Your task to perform on an android device: Open Google Chrome and click the shortcut for Amazon.com Image 0: 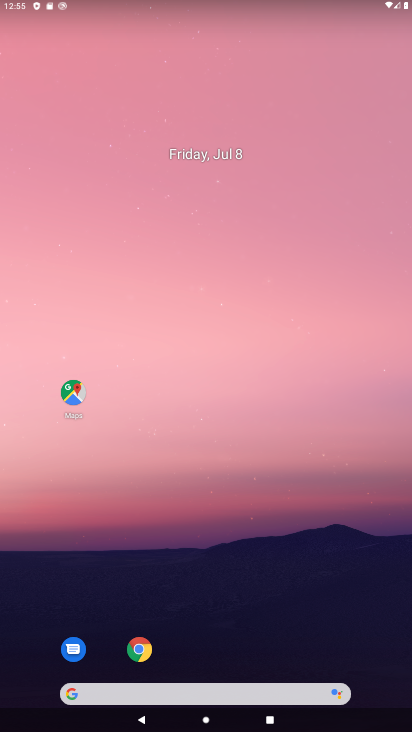
Step 0: drag from (152, 296) to (337, 0)
Your task to perform on an android device: Open Google Chrome and click the shortcut for Amazon.com Image 1: 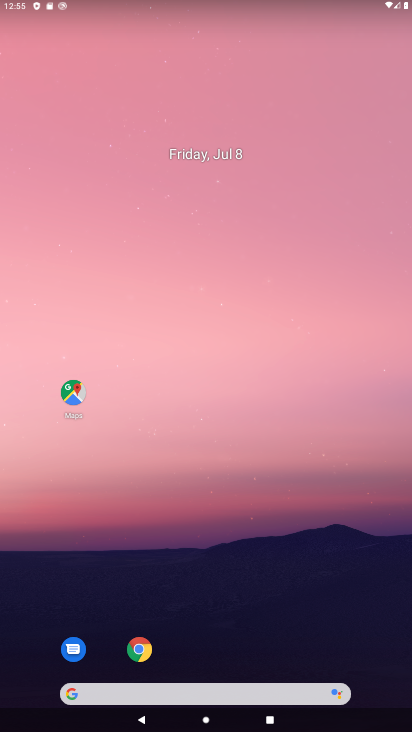
Step 1: drag from (17, 696) to (296, 0)
Your task to perform on an android device: Open Google Chrome and click the shortcut for Amazon.com Image 2: 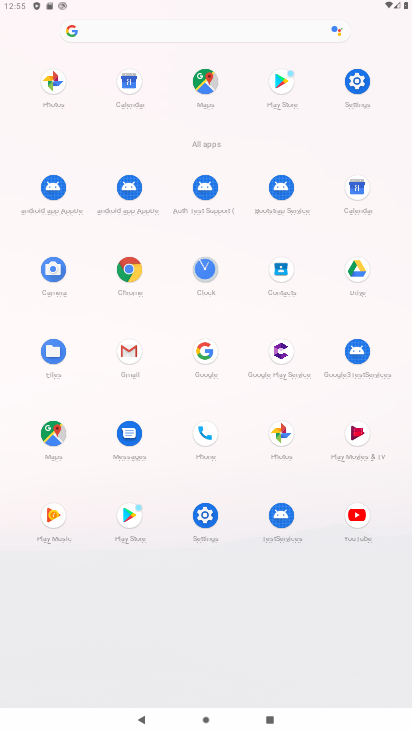
Step 2: click (136, 274)
Your task to perform on an android device: Open Google Chrome and click the shortcut for Amazon.com Image 3: 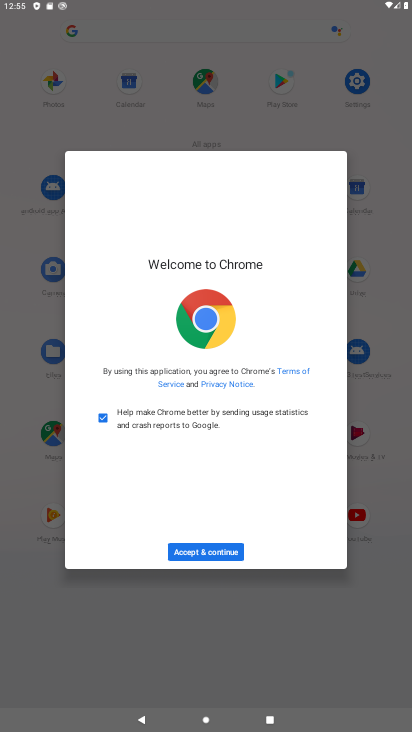
Step 3: click (196, 545)
Your task to perform on an android device: Open Google Chrome and click the shortcut for Amazon.com Image 4: 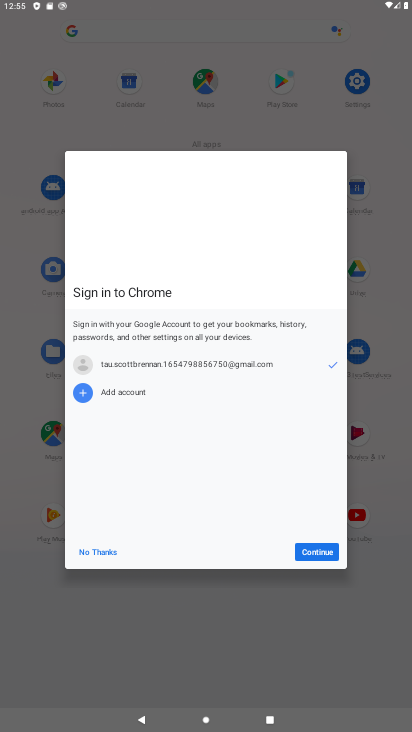
Step 4: click (314, 545)
Your task to perform on an android device: Open Google Chrome and click the shortcut for Amazon.com Image 5: 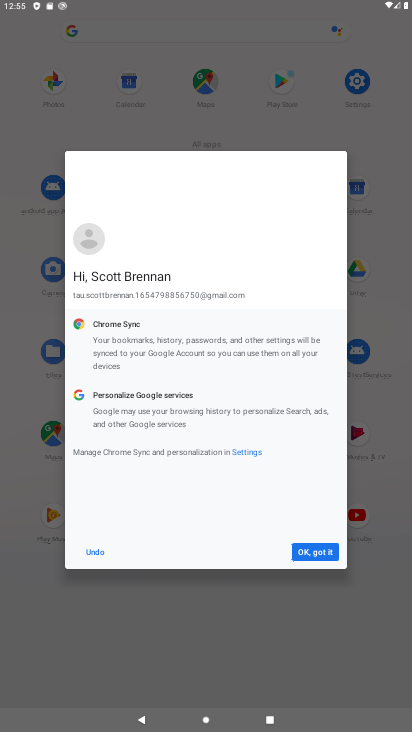
Step 5: click (315, 553)
Your task to perform on an android device: Open Google Chrome and click the shortcut for Amazon.com Image 6: 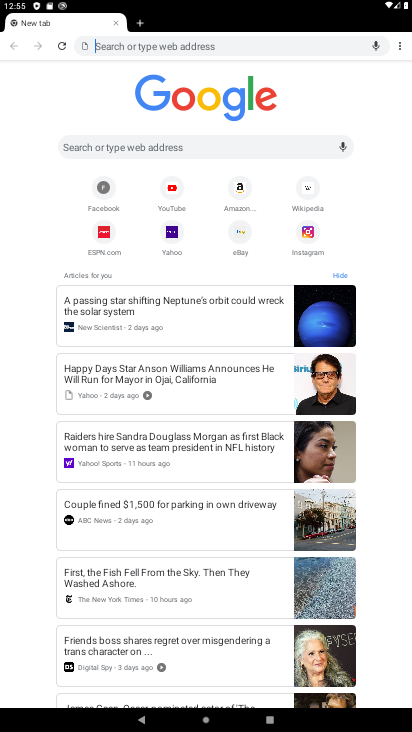
Step 6: click (239, 189)
Your task to perform on an android device: Open Google Chrome and click the shortcut for Amazon.com Image 7: 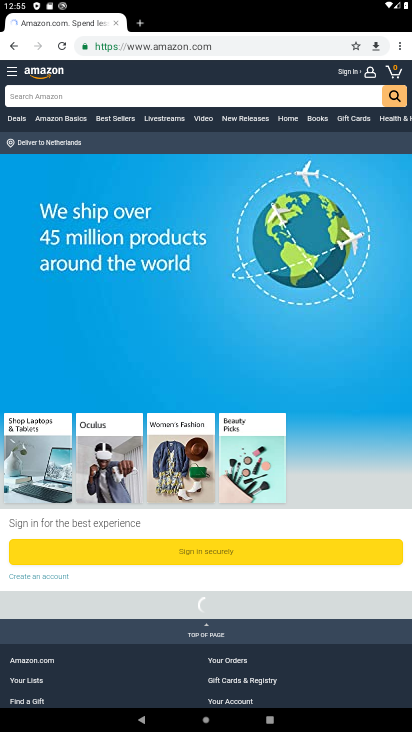
Step 7: task complete